Your task to perform on an android device: add a contact Image 0: 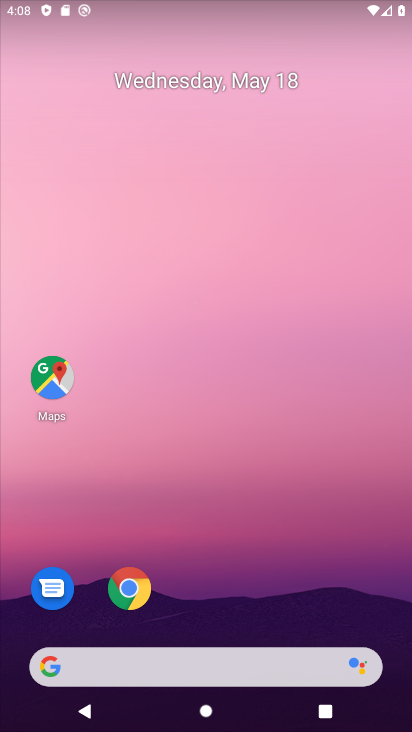
Step 0: drag from (279, 557) to (354, 158)
Your task to perform on an android device: add a contact Image 1: 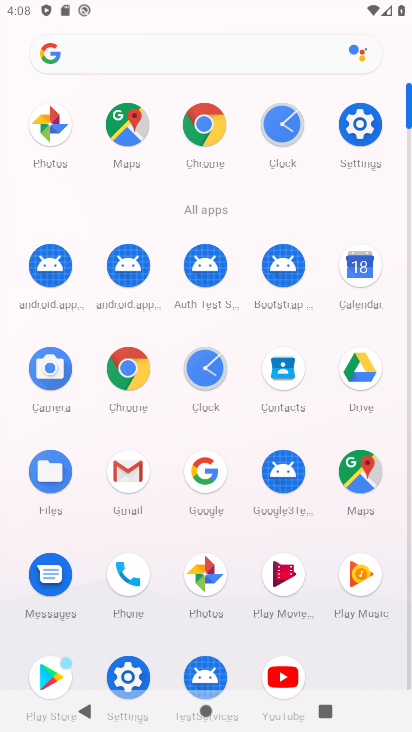
Step 1: click (280, 361)
Your task to perform on an android device: add a contact Image 2: 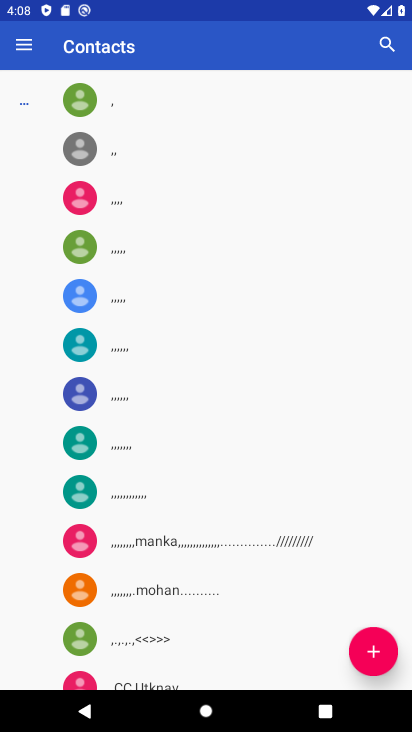
Step 2: click (380, 633)
Your task to perform on an android device: add a contact Image 3: 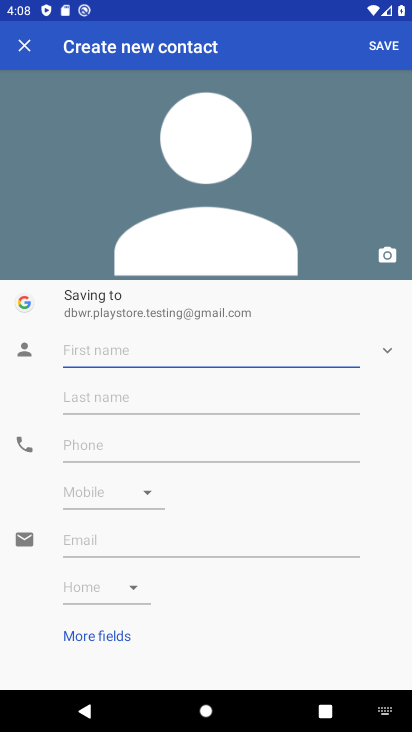
Step 3: click (142, 361)
Your task to perform on an android device: add a contact Image 4: 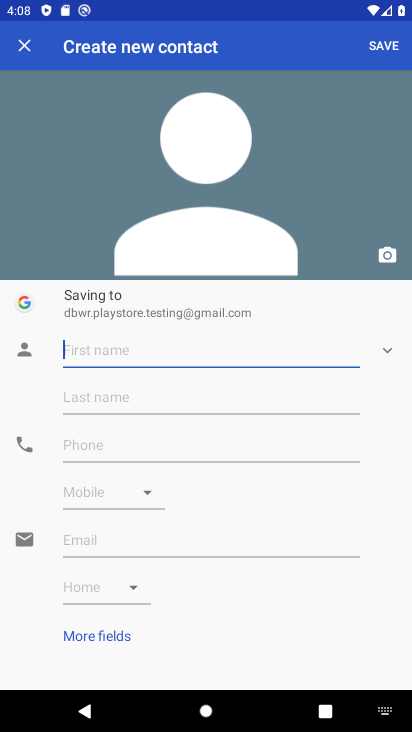
Step 4: click (148, 347)
Your task to perform on an android device: add a contact Image 5: 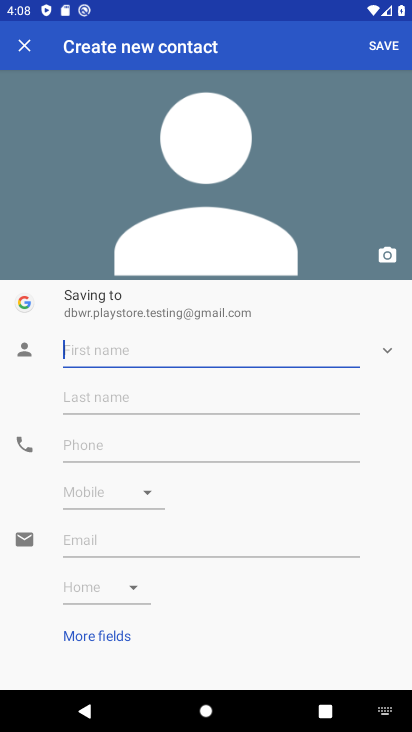
Step 5: type "svbdb"
Your task to perform on an android device: add a contact Image 6: 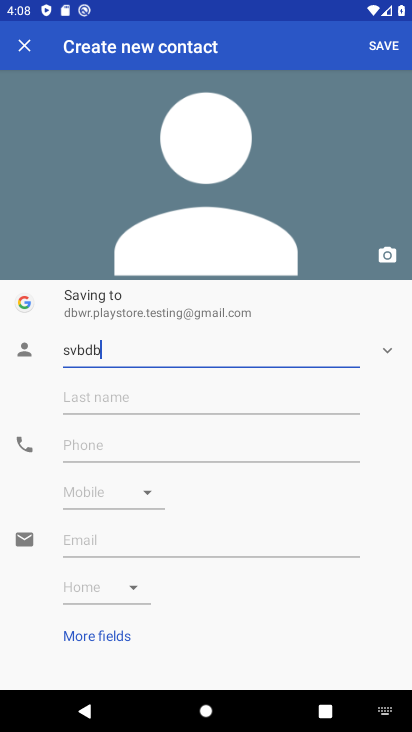
Step 6: type ""
Your task to perform on an android device: add a contact Image 7: 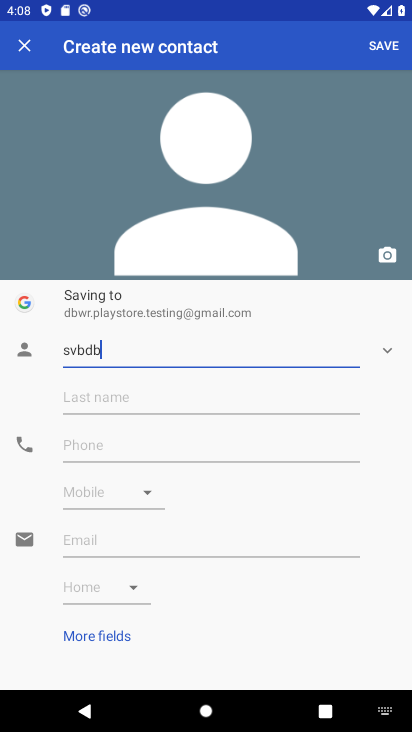
Step 7: click (379, 35)
Your task to perform on an android device: add a contact Image 8: 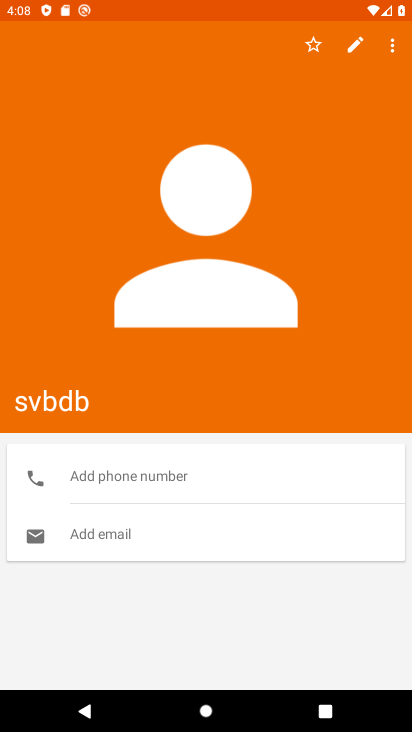
Step 8: task complete